Your task to perform on an android device: Open settings Image 0: 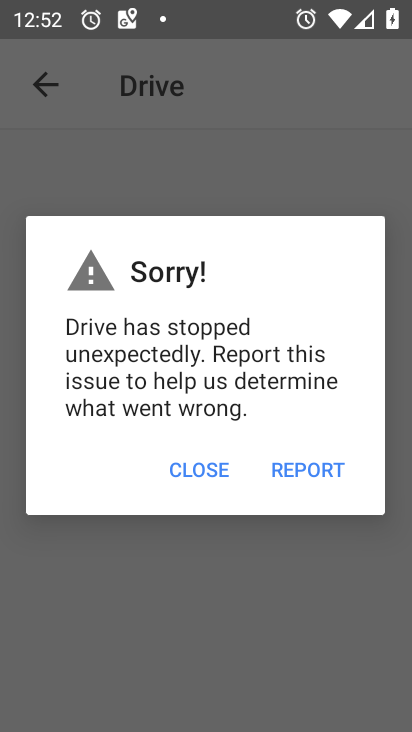
Step 0: press home button
Your task to perform on an android device: Open settings Image 1: 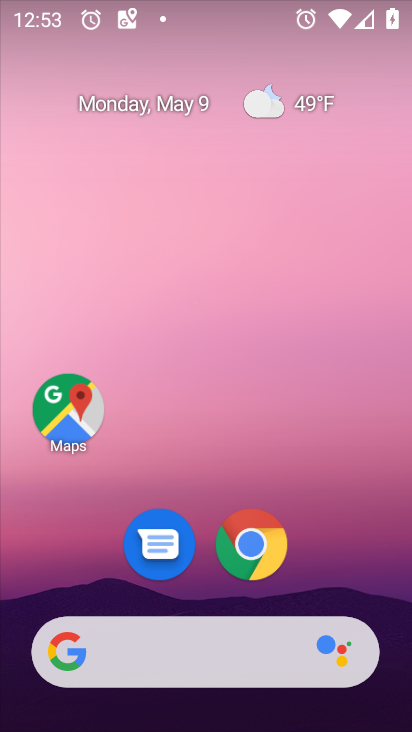
Step 1: drag from (234, 623) to (261, 3)
Your task to perform on an android device: Open settings Image 2: 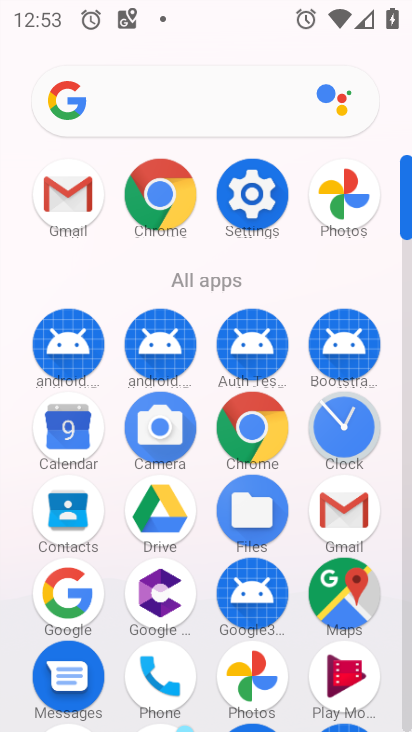
Step 2: click (234, 188)
Your task to perform on an android device: Open settings Image 3: 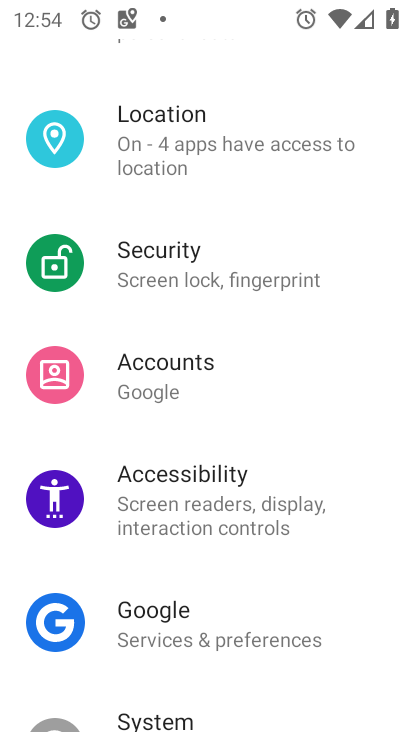
Step 3: task complete